Your task to perform on an android device: turn pop-ups on in chrome Image 0: 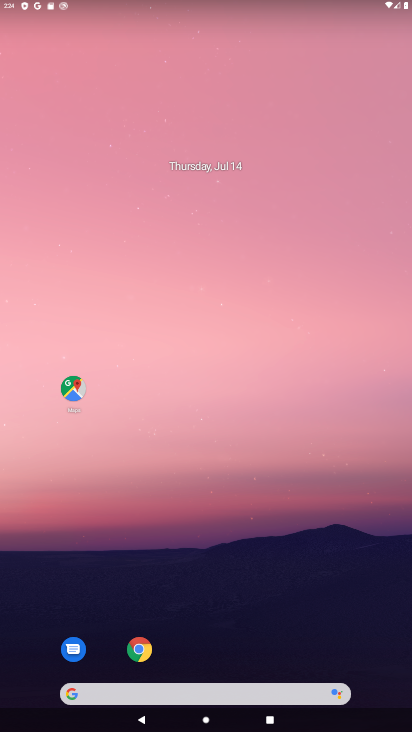
Step 0: click (146, 658)
Your task to perform on an android device: turn pop-ups on in chrome Image 1: 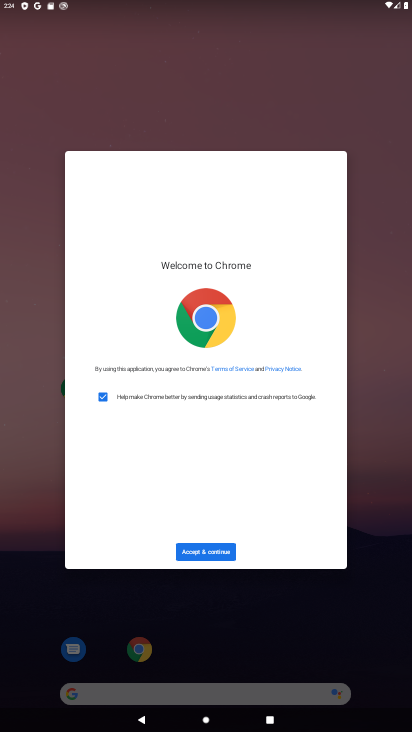
Step 1: click (203, 553)
Your task to perform on an android device: turn pop-ups on in chrome Image 2: 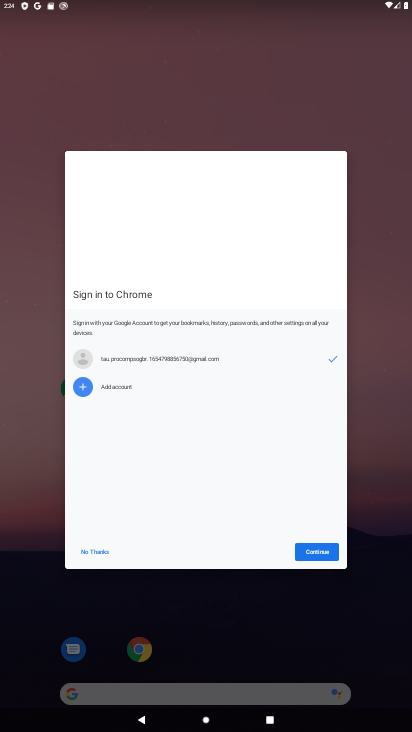
Step 2: click (311, 567)
Your task to perform on an android device: turn pop-ups on in chrome Image 3: 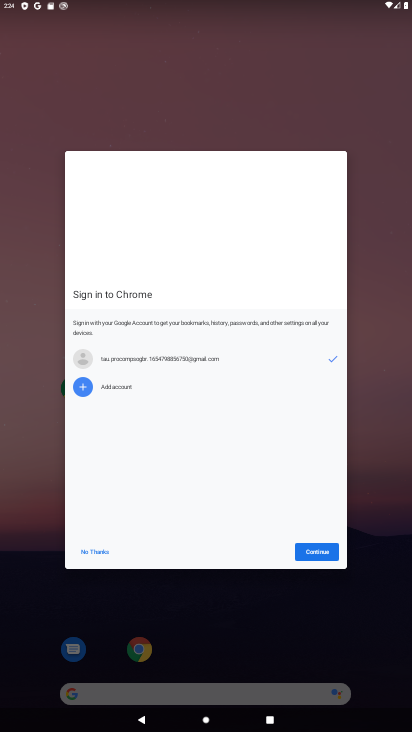
Step 3: click (315, 553)
Your task to perform on an android device: turn pop-ups on in chrome Image 4: 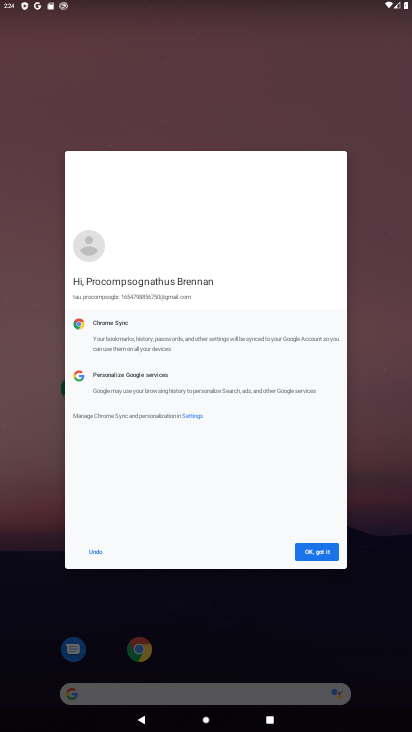
Step 4: click (326, 548)
Your task to perform on an android device: turn pop-ups on in chrome Image 5: 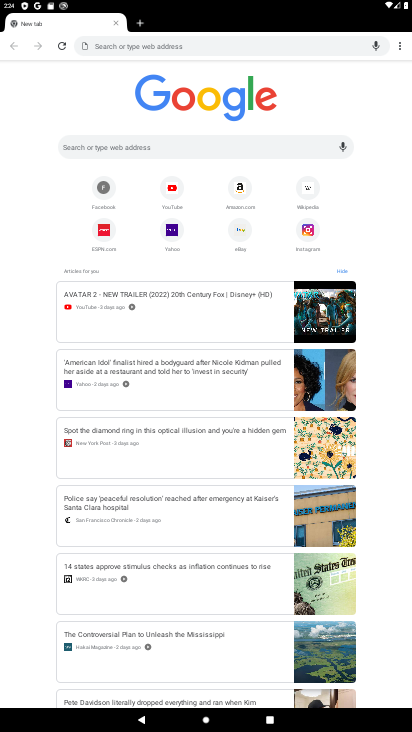
Step 5: click (400, 47)
Your task to perform on an android device: turn pop-ups on in chrome Image 6: 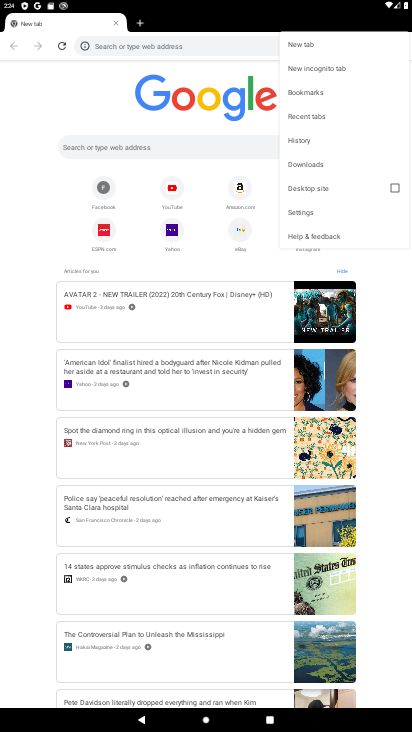
Step 6: click (324, 216)
Your task to perform on an android device: turn pop-ups on in chrome Image 7: 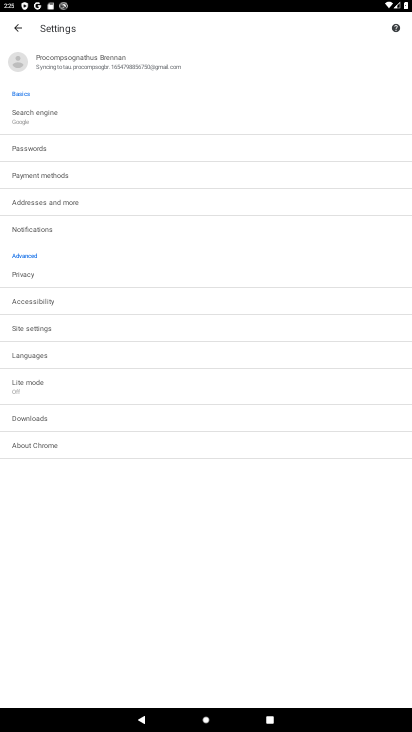
Step 7: click (89, 337)
Your task to perform on an android device: turn pop-ups on in chrome Image 8: 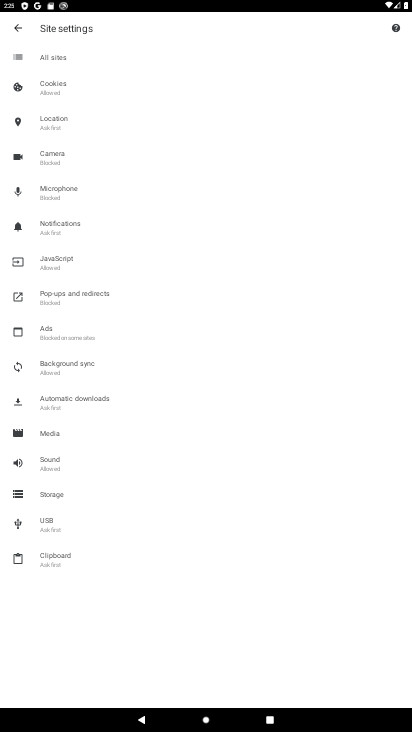
Step 8: click (83, 298)
Your task to perform on an android device: turn pop-ups on in chrome Image 9: 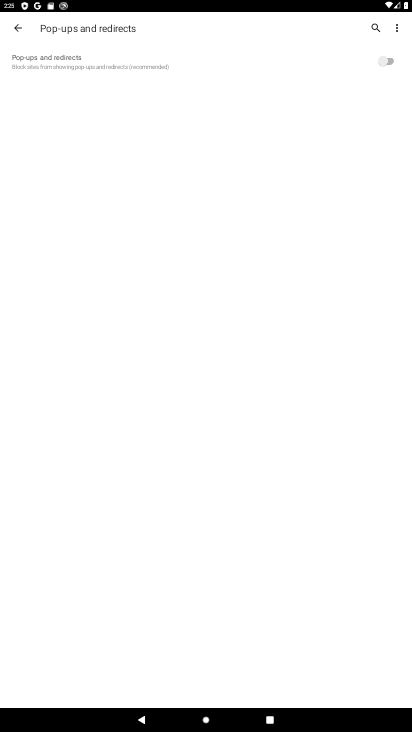
Step 9: click (390, 54)
Your task to perform on an android device: turn pop-ups on in chrome Image 10: 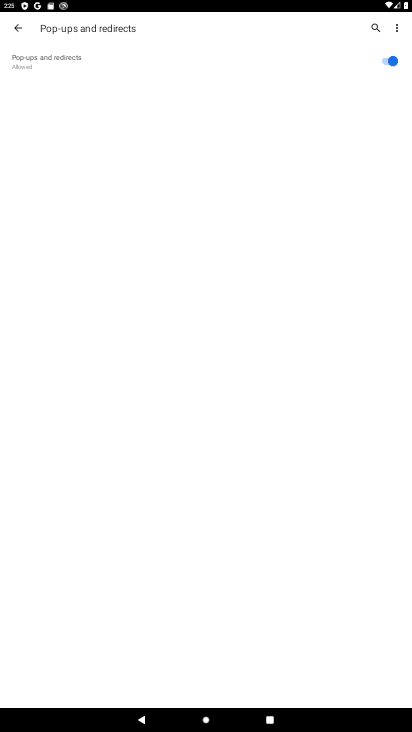
Step 10: task complete